Your task to perform on an android device: Open calendar and show me the first week of next month Image 0: 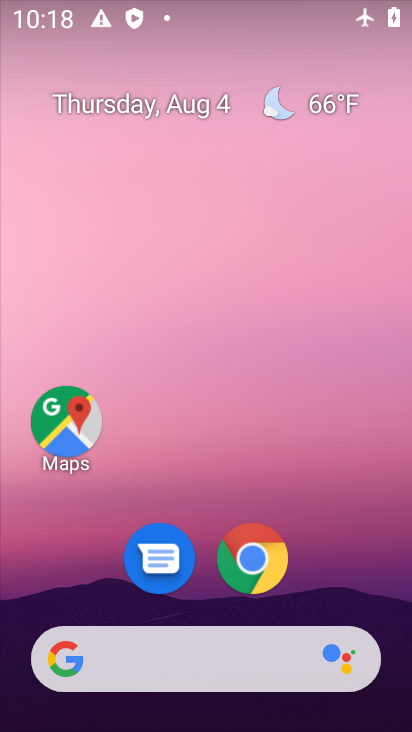
Step 0: drag from (319, 577) to (303, 39)
Your task to perform on an android device: Open calendar and show me the first week of next month Image 1: 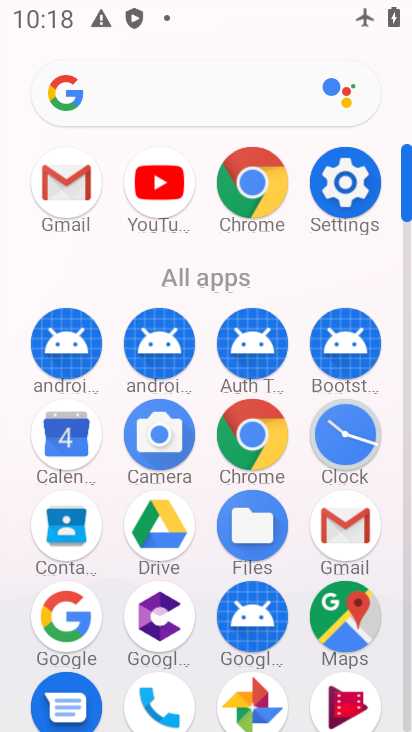
Step 1: click (73, 440)
Your task to perform on an android device: Open calendar and show me the first week of next month Image 2: 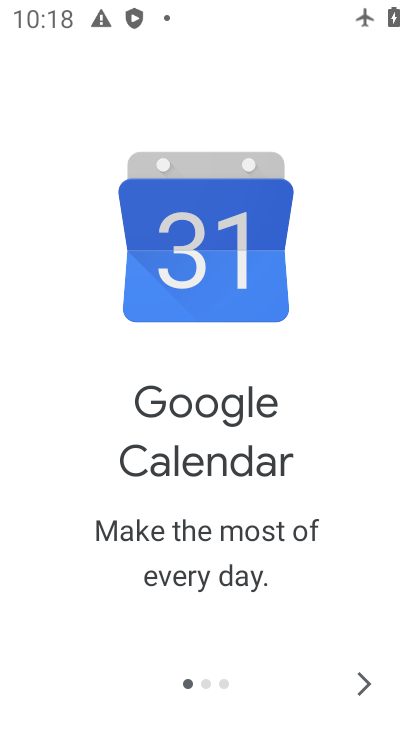
Step 2: click (356, 688)
Your task to perform on an android device: Open calendar and show me the first week of next month Image 3: 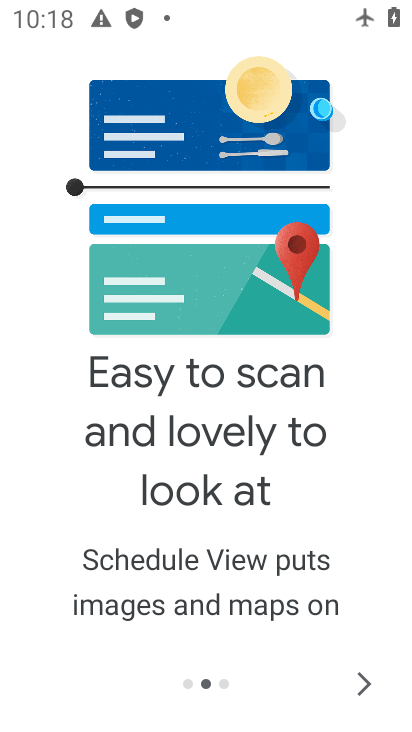
Step 3: click (356, 688)
Your task to perform on an android device: Open calendar and show me the first week of next month Image 4: 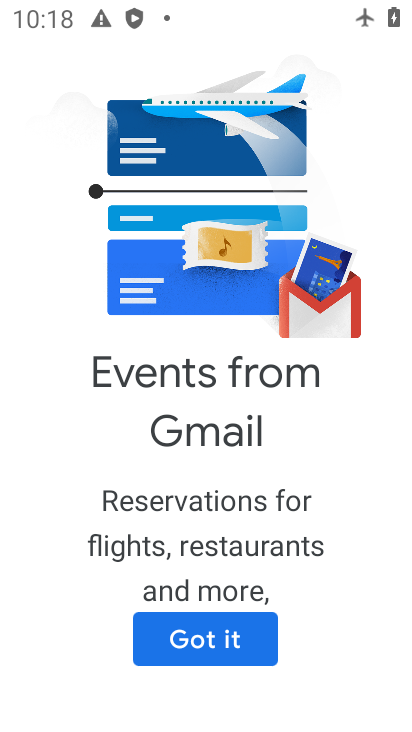
Step 4: click (229, 658)
Your task to perform on an android device: Open calendar and show me the first week of next month Image 5: 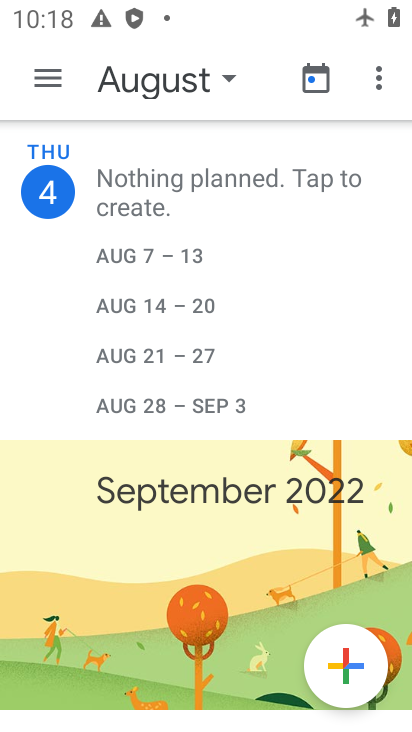
Step 5: click (168, 84)
Your task to perform on an android device: Open calendar and show me the first week of next month Image 6: 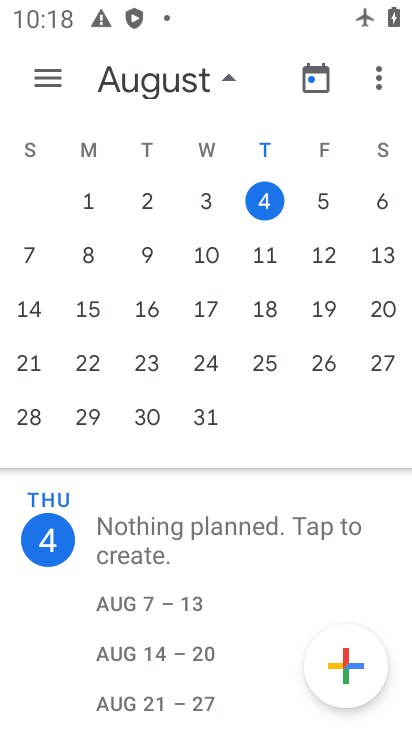
Step 6: drag from (377, 300) to (1, 270)
Your task to perform on an android device: Open calendar and show me the first week of next month Image 7: 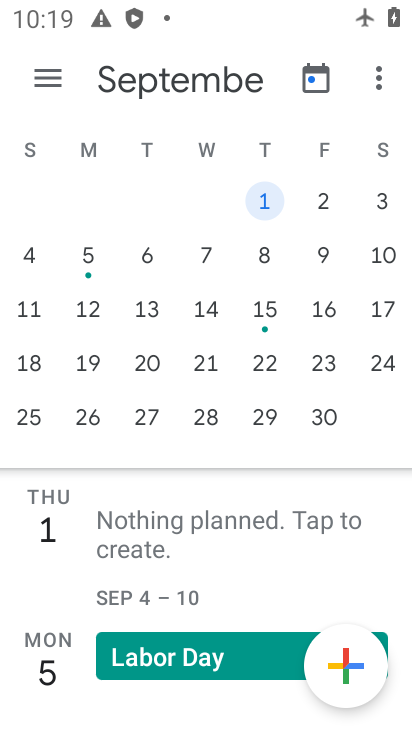
Step 7: click (148, 267)
Your task to perform on an android device: Open calendar and show me the first week of next month Image 8: 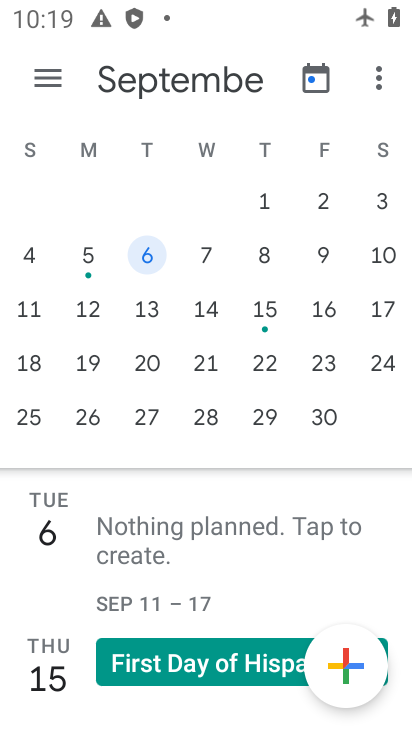
Step 8: click (51, 82)
Your task to perform on an android device: Open calendar and show me the first week of next month Image 9: 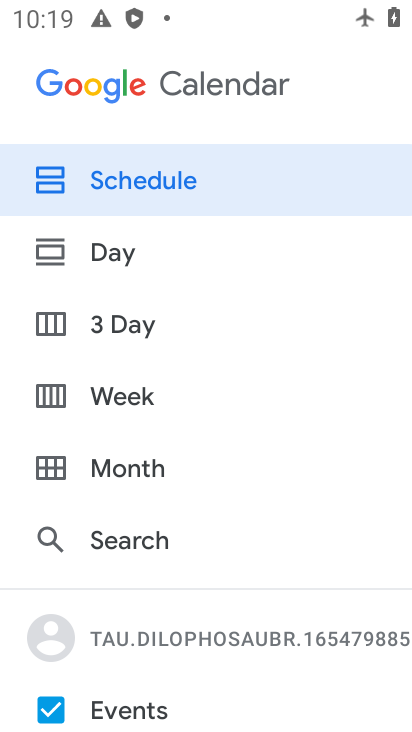
Step 9: click (139, 418)
Your task to perform on an android device: Open calendar and show me the first week of next month Image 10: 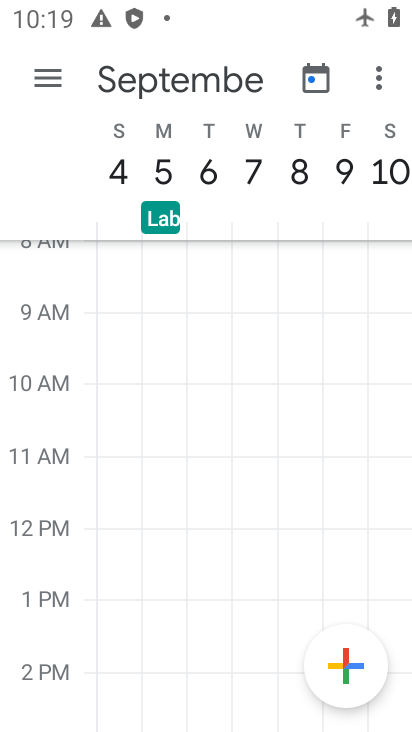
Step 10: task complete